Your task to perform on an android device: create a new album in the google photos Image 0: 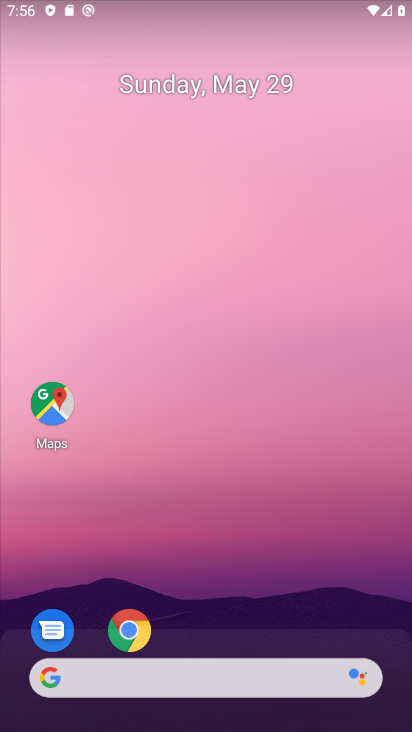
Step 0: drag from (230, 606) to (275, 47)
Your task to perform on an android device: create a new album in the google photos Image 1: 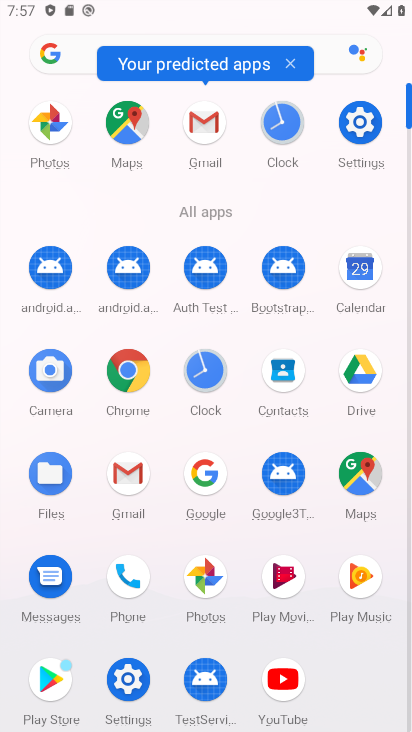
Step 1: click (206, 570)
Your task to perform on an android device: create a new album in the google photos Image 2: 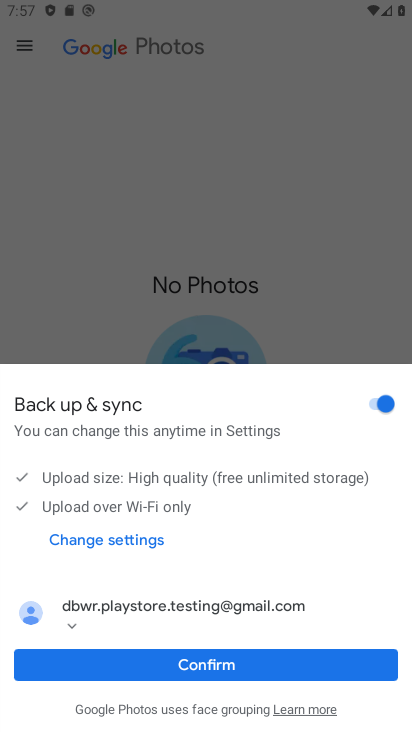
Step 2: click (184, 666)
Your task to perform on an android device: create a new album in the google photos Image 3: 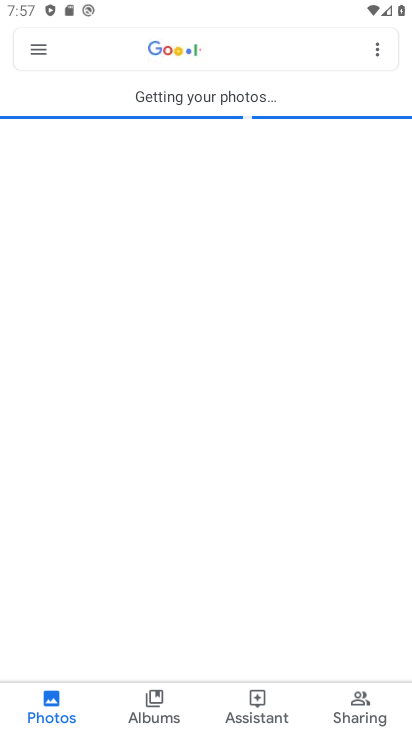
Step 3: click (38, 49)
Your task to perform on an android device: create a new album in the google photos Image 4: 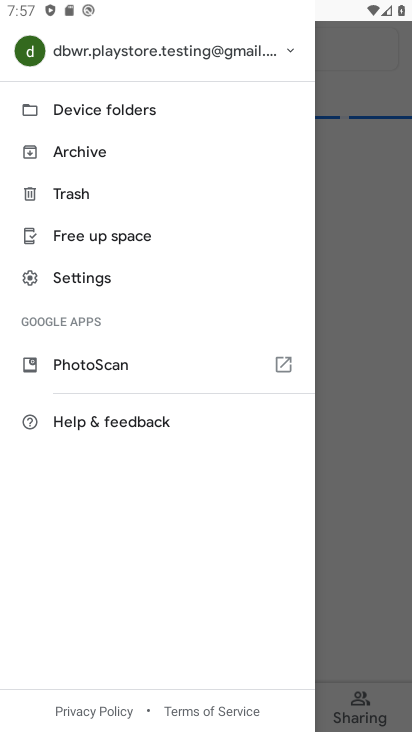
Step 4: click (375, 181)
Your task to perform on an android device: create a new album in the google photos Image 5: 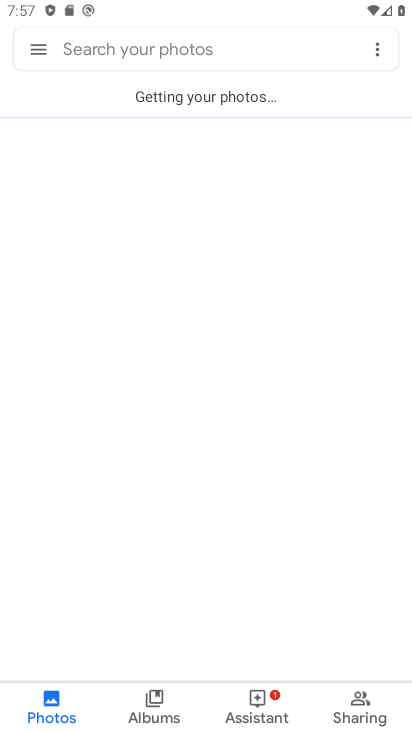
Step 5: click (381, 40)
Your task to perform on an android device: create a new album in the google photos Image 6: 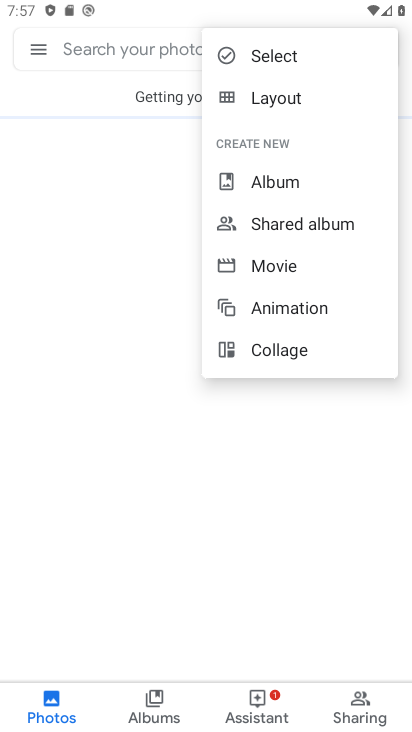
Step 6: click (260, 176)
Your task to perform on an android device: create a new album in the google photos Image 7: 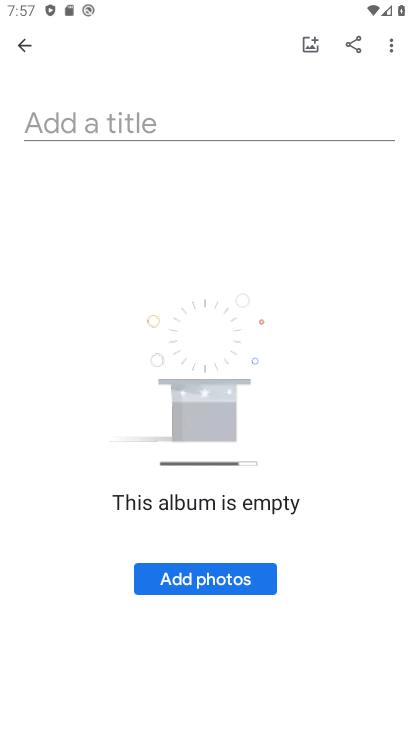
Step 7: click (167, 129)
Your task to perform on an android device: create a new album in the google photos Image 8: 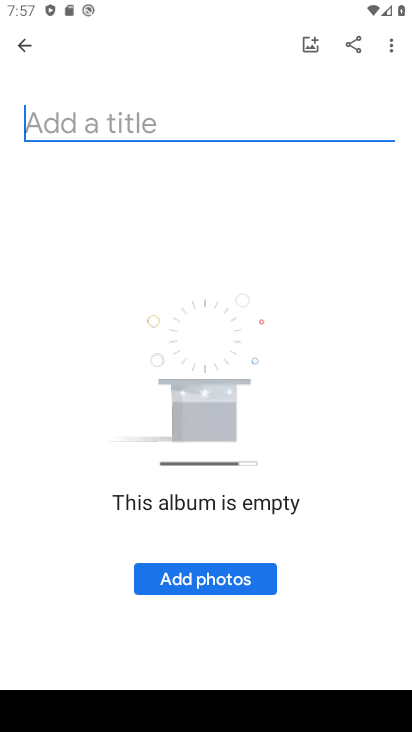
Step 8: type "fdgfdb"
Your task to perform on an android device: create a new album in the google photos Image 9: 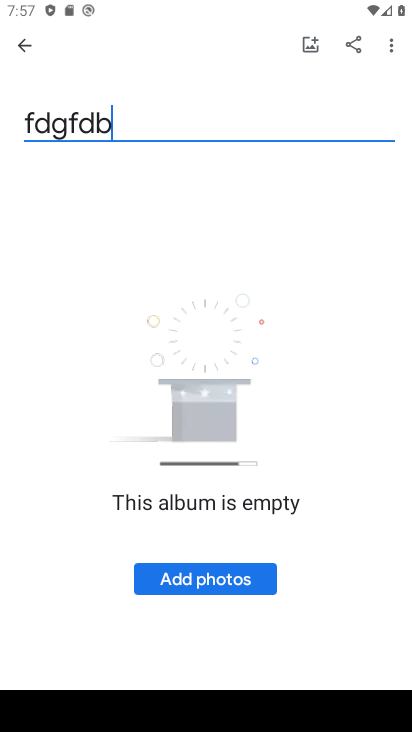
Step 9: click (218, 574)
Your task to perform on an android device: create a new album in the google photos Image 10: 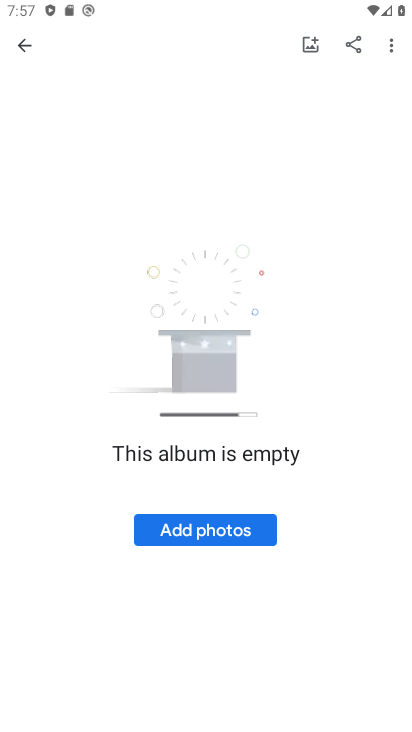
Step 10: click (240, 532)
Your task to perform on an android device: create a new album in the google photos Image 11: 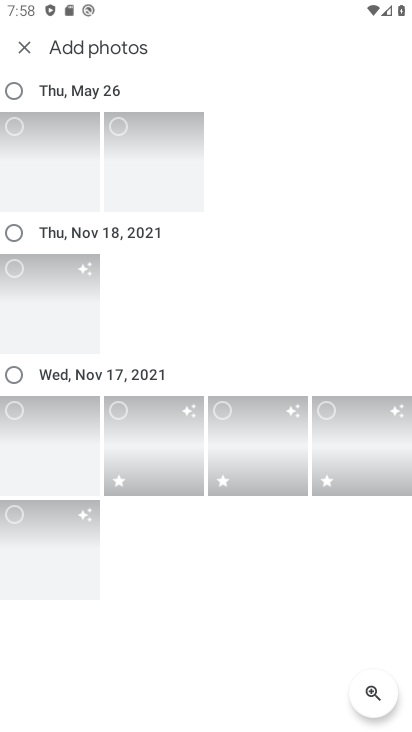
Step 11: drag from (273, 488) to (289, 282)
Your task to perform on an android device: create a new album in the google photos Image 12: 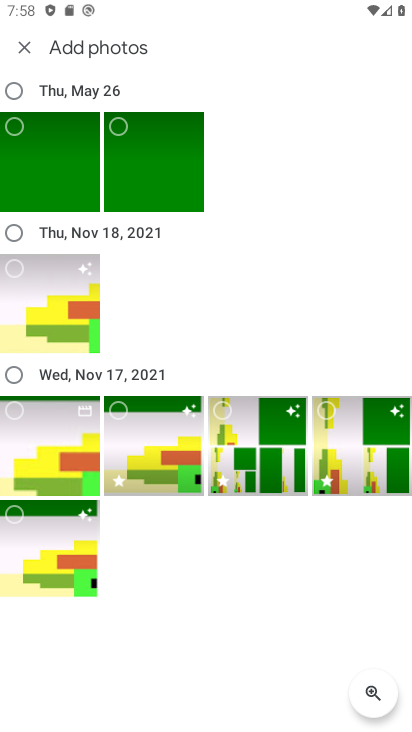
Step 12: click (10, 409)
Your task to perform on an android device: create a new album in the google photos Image 13: 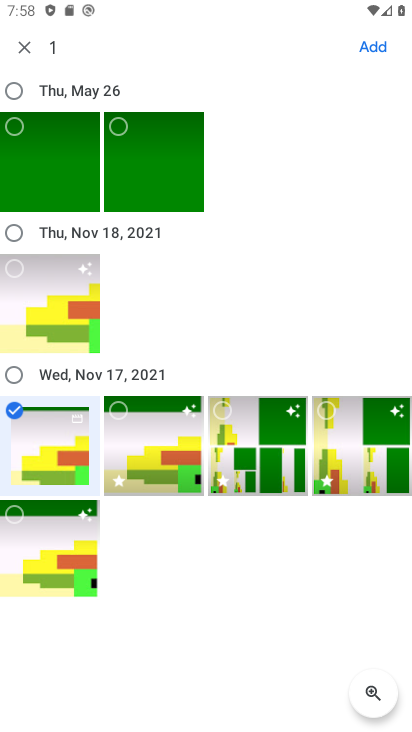
Step 13: click (122, 413)
Your task to perform on an android device: create a new album in the google photos Image 14: 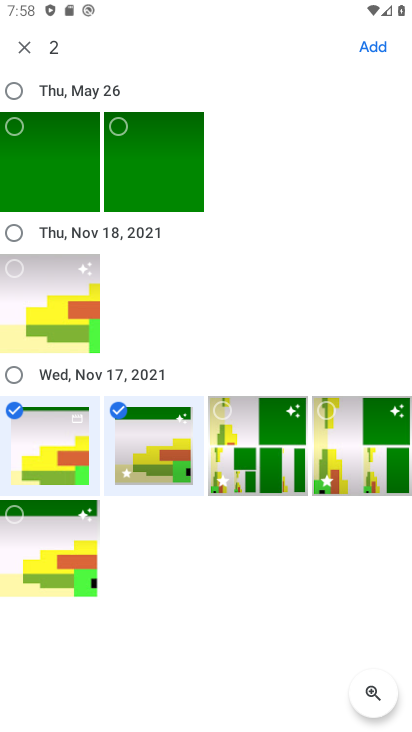
Step 14: click (373, 42)
Your task to perform on an android device: create a new album in the google photos Image 15: 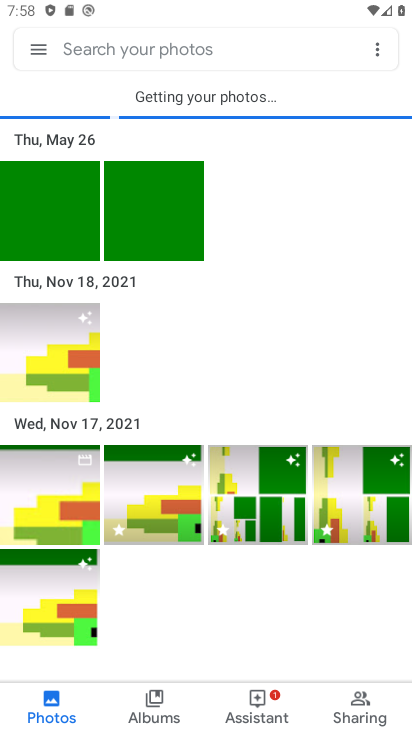
Step 15: task complete